Your task to perform on an android device: Empty the shopping cart on newegg. Search for "usb-b" on newegg, select the first entry, add it to the cart, then select checkout. Image 0: 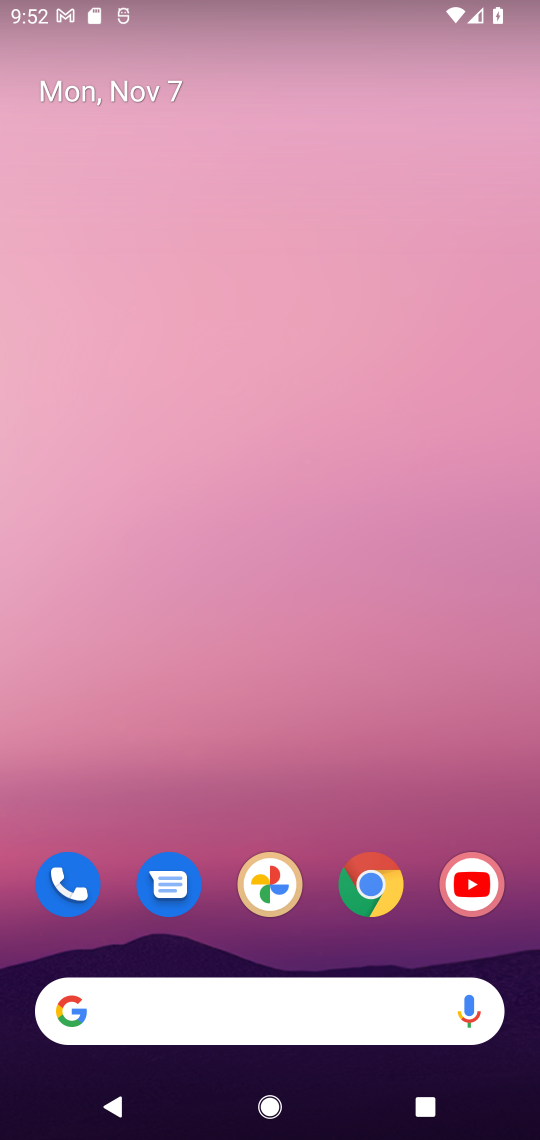
Step 0: click (375, 877)
Your task to perform on an android device: Empty the shopping cart on newegg. Search for "usb-b" on newegg, select the first entry, add it to the cart, then select checkout. Image 1: 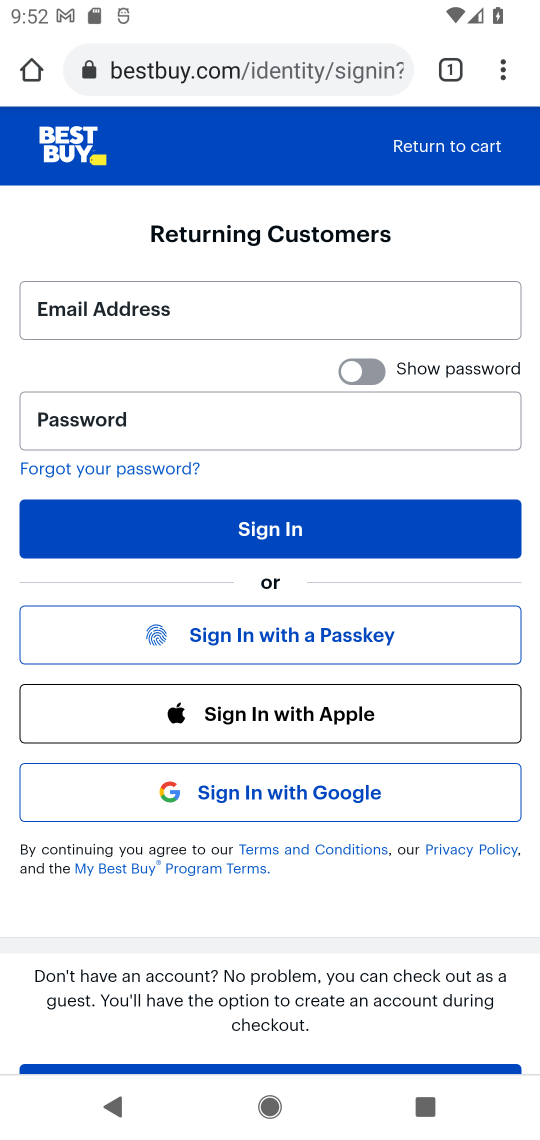
Step 1: click (327, 76)
Your task to perform on an android device: Empty the shopping cart on newegg. Search for "usb-b" on newegg, select the first entry, add it to the cart, then select checkout. Image 2: 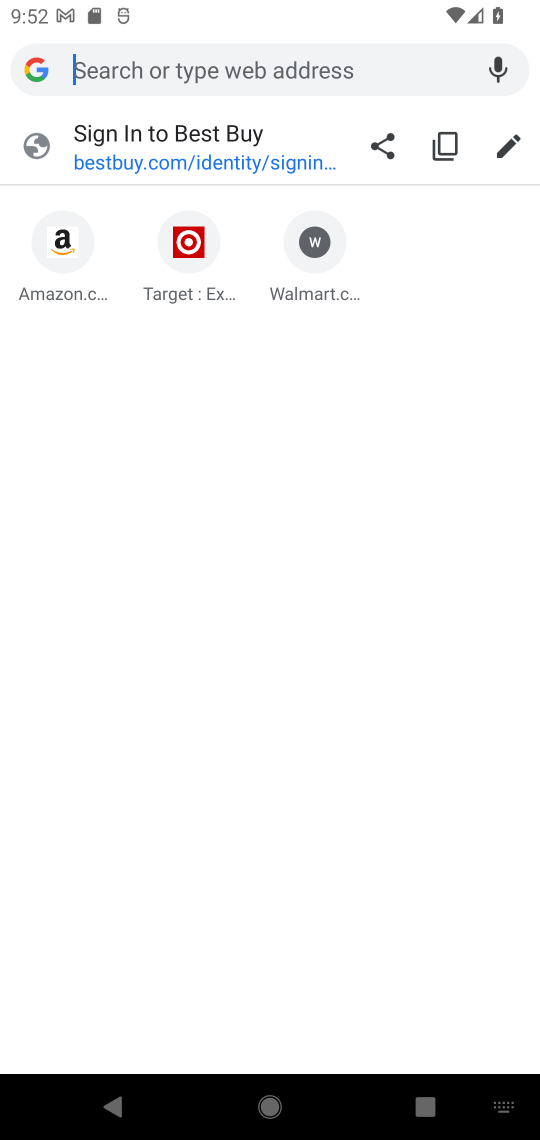
Step 2: type "newegg"
Your task to perform on an android device: Empty the shopping cart on newegg. Search for "usb-b" on newegg, select the first entry, add it to the cart, then select checkout. Image 3: 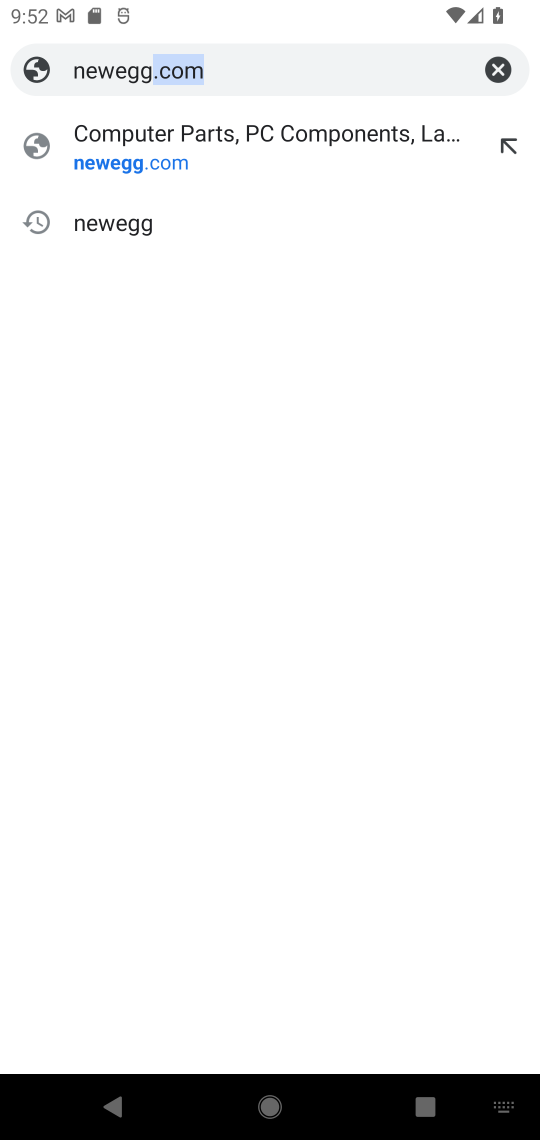
Step 3: click (354, 67)
Your task to perform on an android device: Empty the shopping cart on newegg. Search for "usb-b" on newegg, select the first entry, add it to the cart, then select checkout. Image 4: 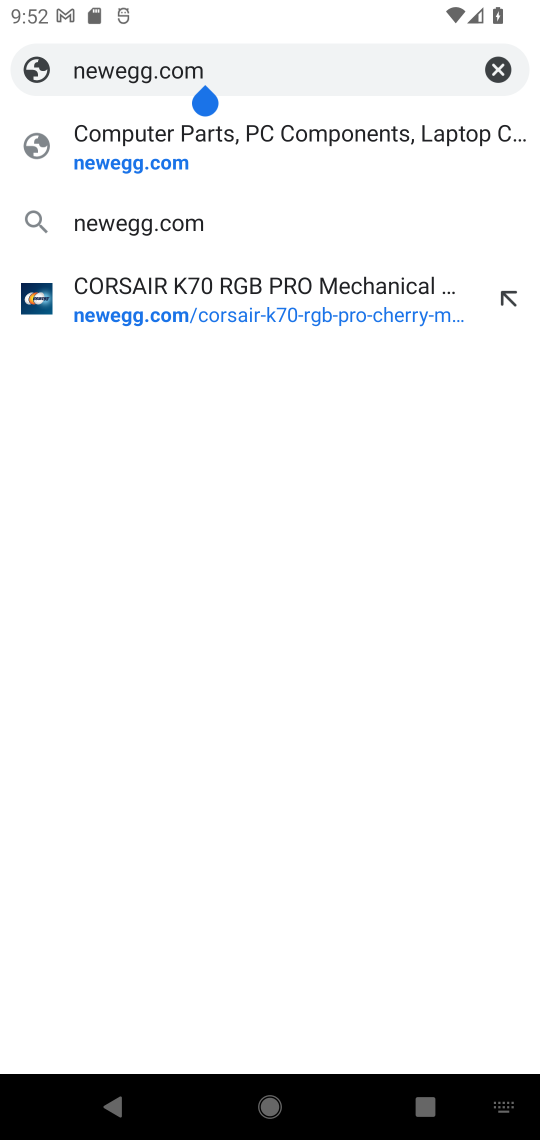
Step 4: click (183, 220)
Your task to perform on an android device: Empty the shopping cart on newegg. Search for "usb-b" on newegg, select the first entry, add it to the cart, then select checkout. Image 5: 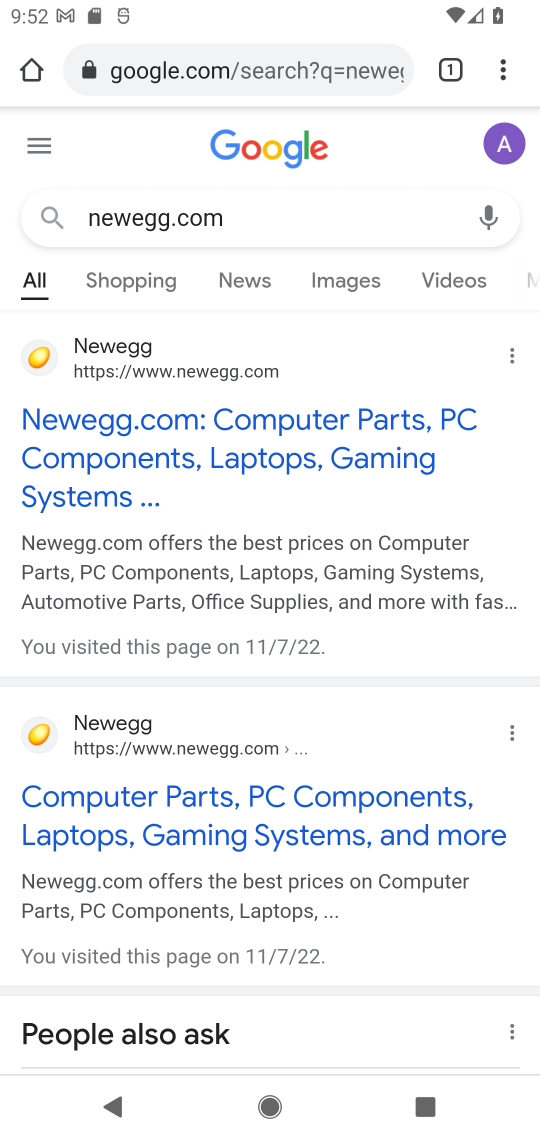
Step 5: click (151, 369)
Your task to perform on an android device: Empty the shopping cart on newegg. Search for "usb-b" on newegg, select the first entry, add it to the cart, then select checkout. Image 6: 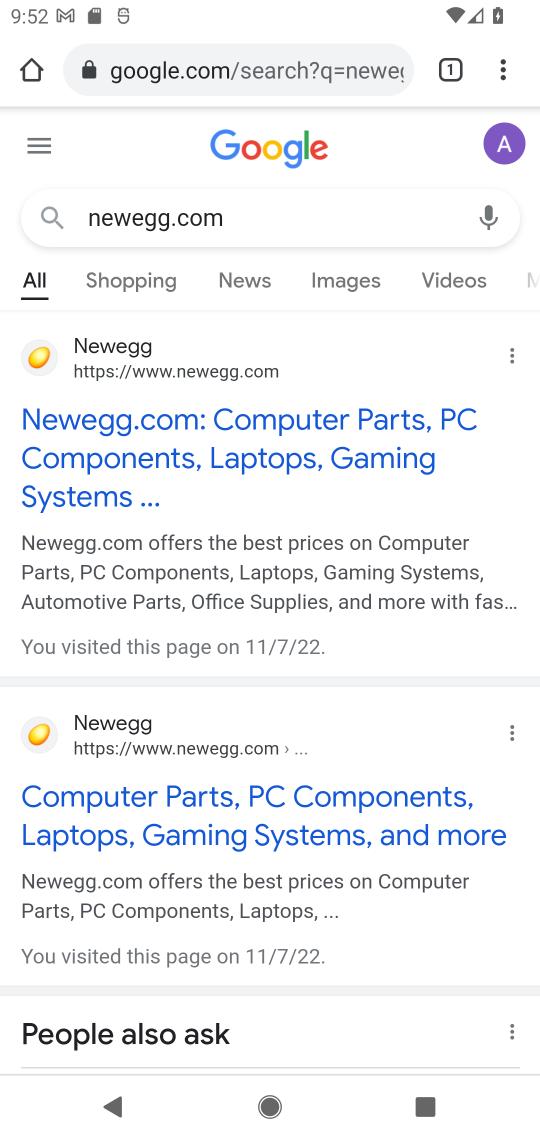
Step 6: click (174, 368)
Your task to perform on an android device: Empty the shopping cart on newegg. Search for "usb-b" on newegg, select the first entry, add it to the cart, then select checkout. Image 7: 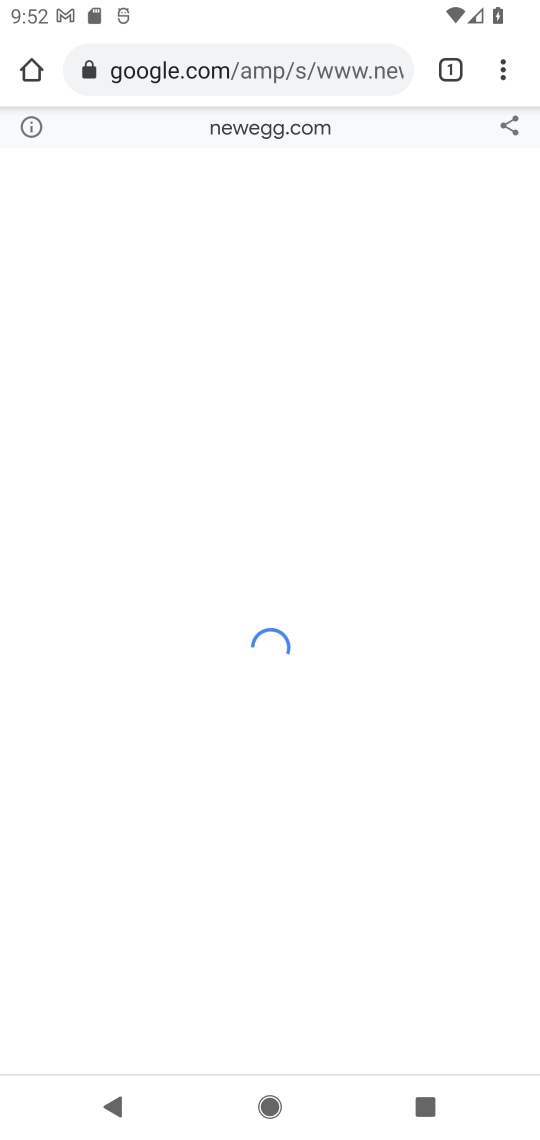
Step 7: click (190, 363)
Your task to perform on an android device: Empty the shopping cart on newegg. Search for "usb-b" on newegg, select the first entry, add it to the cart, then select checkout. Image 8: 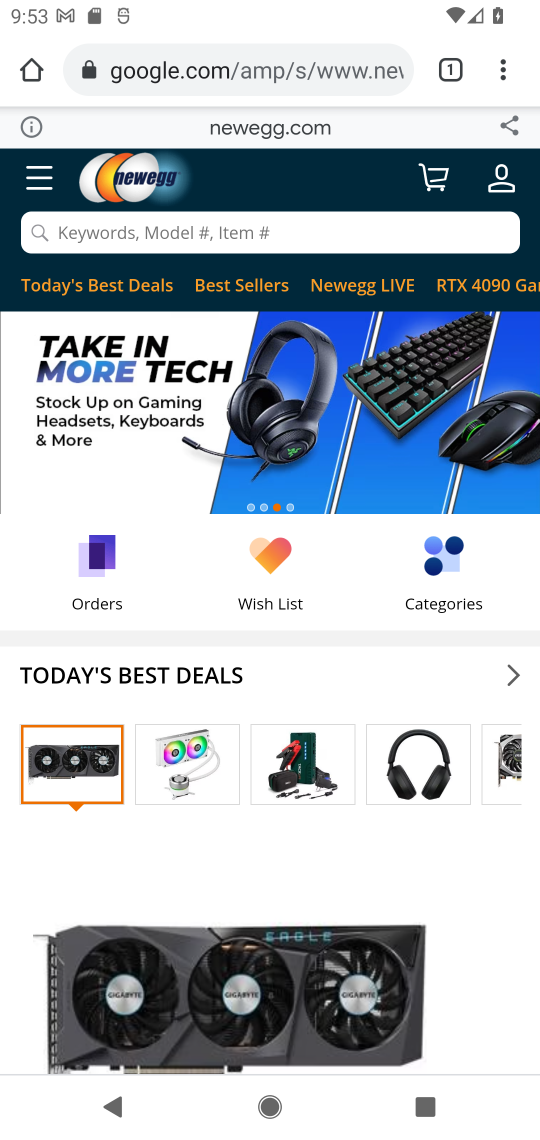
Step 8: click (318, 226)
Your task to perform on an android device: Empty the shopping cart on newegg. Search for "usb-b" on newegg, select the first entry, add it to the cart, then select checkout. Image 9: 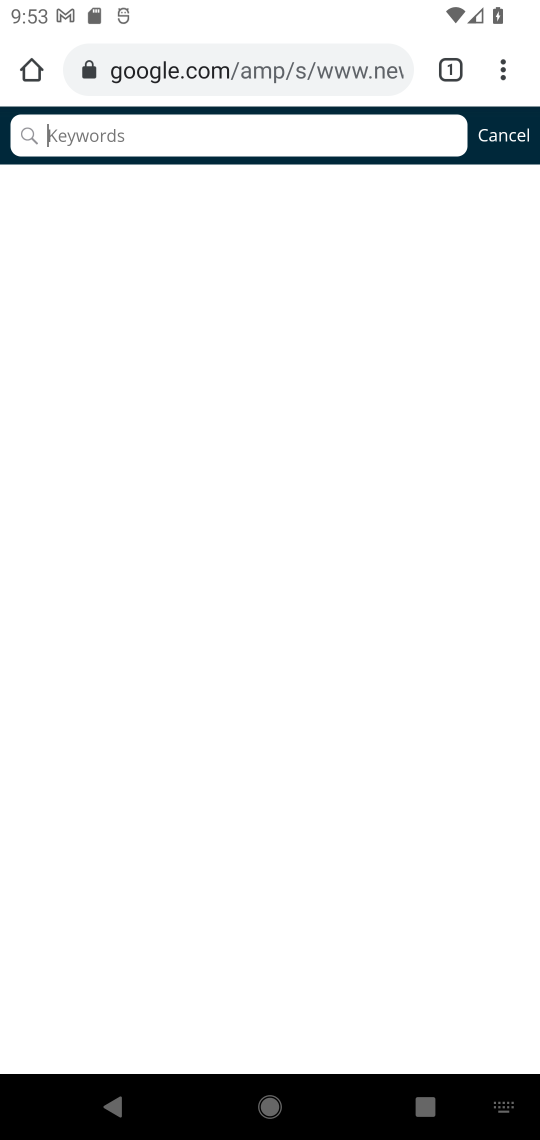
Step 9: type "usb-b"
Your task to perform on an android device: Empty the shopping cart on newegg. Search for "usb-b" on newegg, select the first entry, add it to the cart, then select checkout. Image 10: 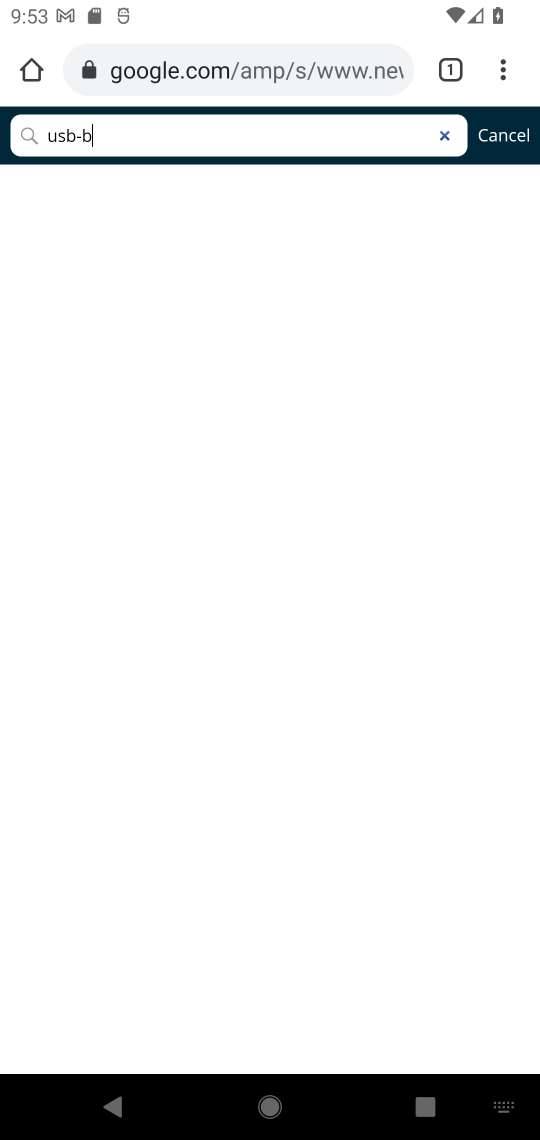
Step 10: click (454, 566)
Your task to perform on an android device: Empty the shopping cart on newegg. Search for "usb-b" on newegg, select the first entry, add it to the cart, then select checkout. Image 11: 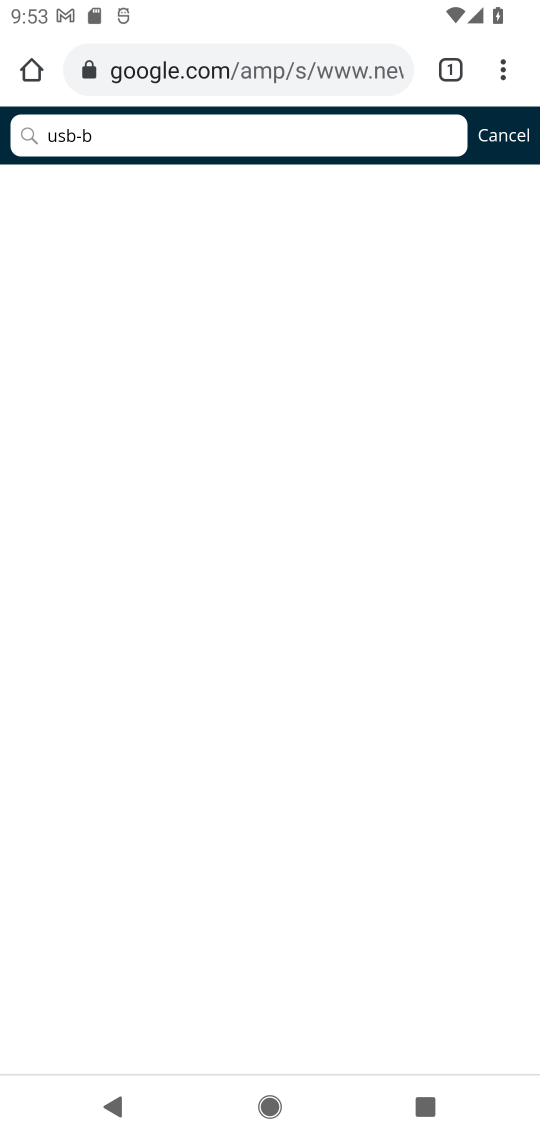
Step 11: click (454, 566)
Your task to perform on an android device: Empty the shopping cart on newegg. Search for "usb-b" on newegg, select the first entry, add it to the cart, then select checkout. Image 12: 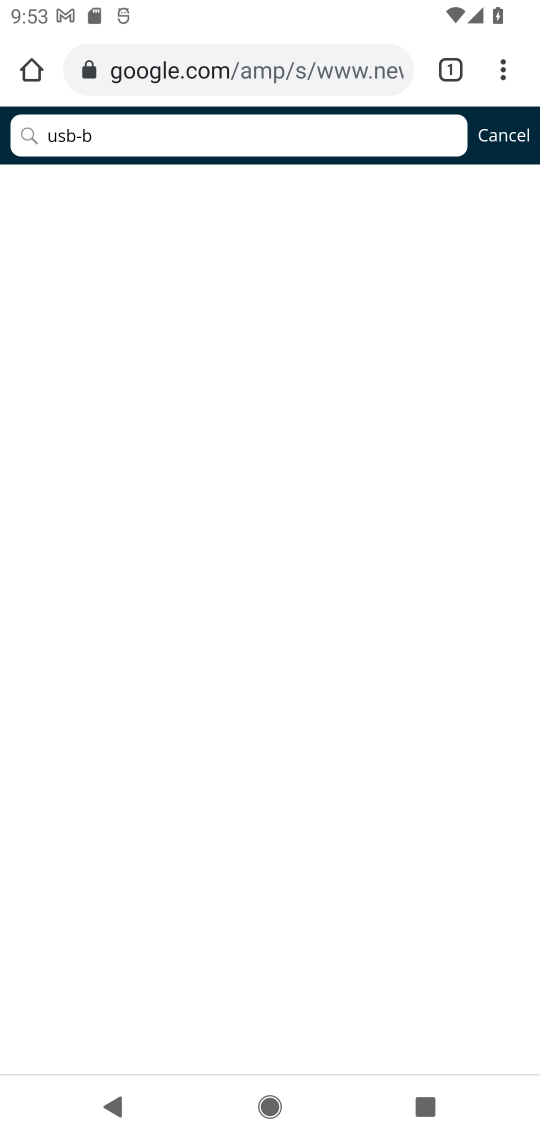
Step 12: click (454, 566)
Your task to perform on an android device: Empty the shopping cart on newegg. Search for "usb-b" on newegg, select the first entry, add it to the cart, then select checkout. Image 13: 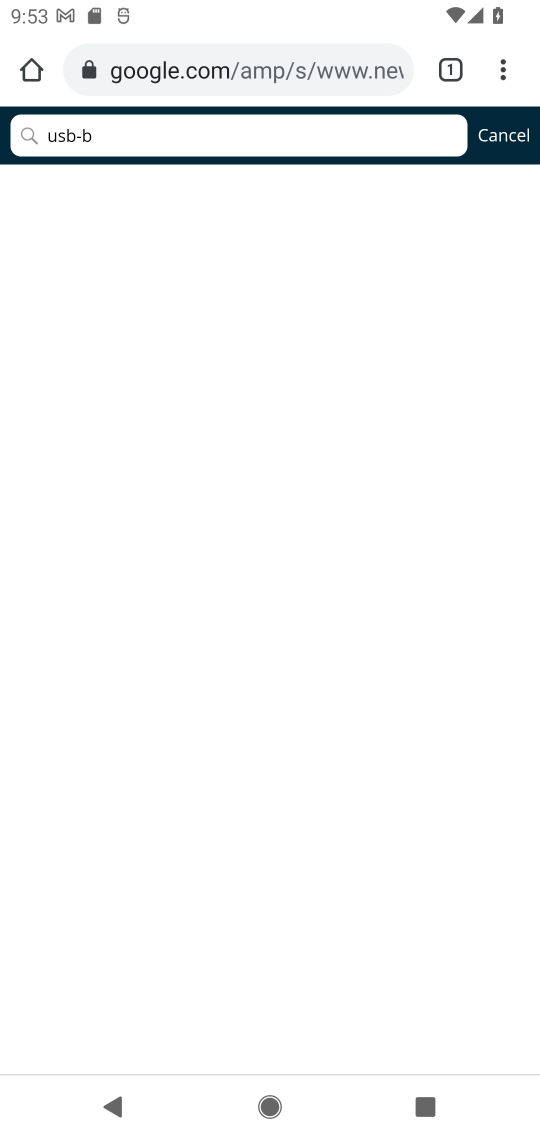
Step 13: task complete